Your task to perform on an android device: Search for seafood restaurants on Google Maps Image 0: 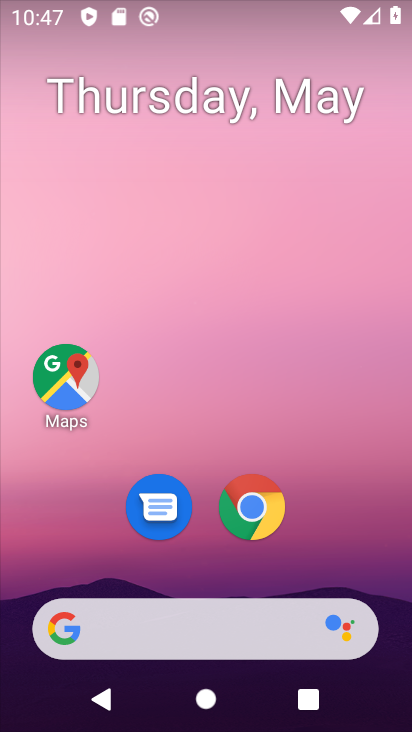
Step 0: drag from (243, 651) to (290, 121)
Your task to perform on an android device: Search for seafood restaurants on Google Maps Image 1: 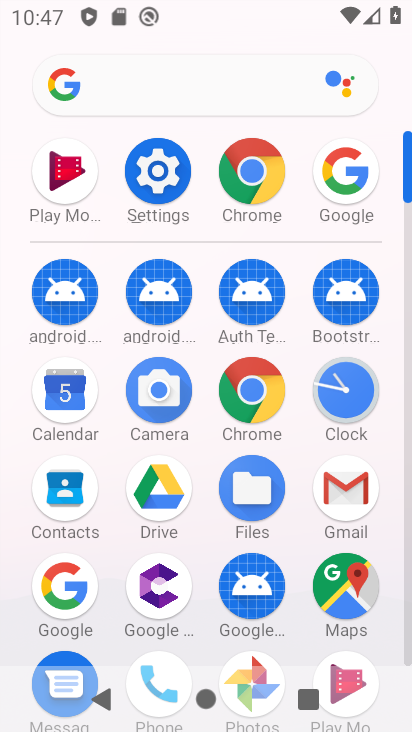
Step 1: click (353, 593)
Your task to perform on an android device: Search for seafood restaurants on Google Maps Image 2: 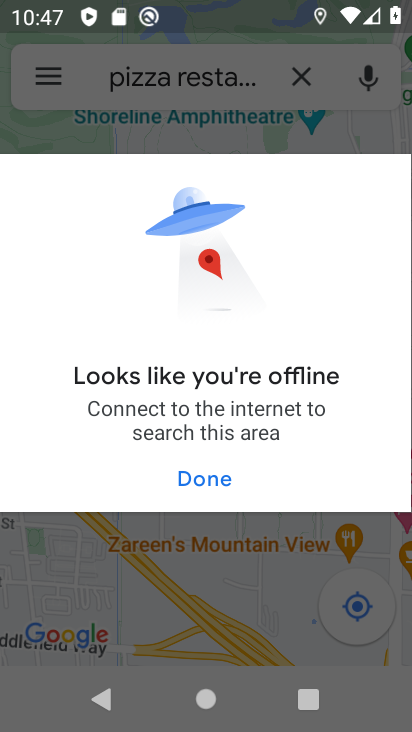
Step 2: click (195, 481)
Your task to perform on an android device: Search for seafood restaurants on Google Maps Image 3: 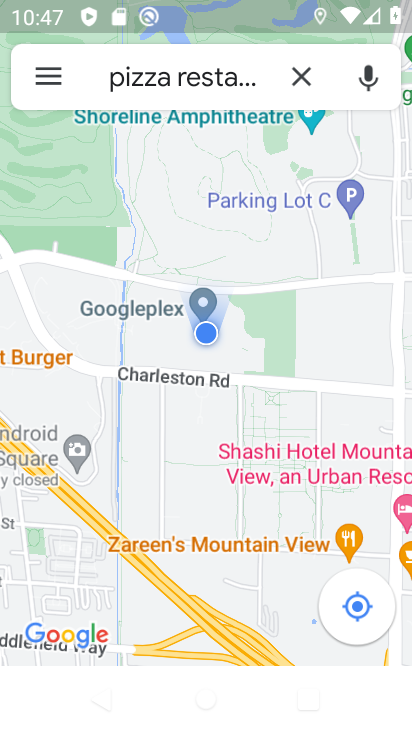
Step 3: click (300, 79)
Your task to perform on an android device: Search for seafood restaurants on Google Maps Image 4: 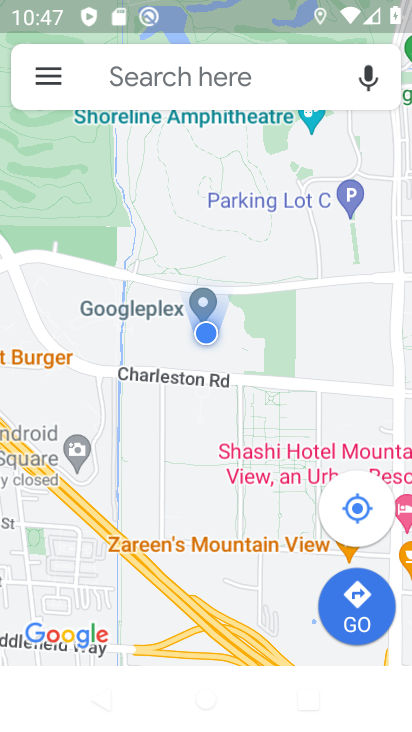
Step 4: click (223, 76)
Your task to perform on an android device: Search for seafood restaurants on Google Maps Image 5: 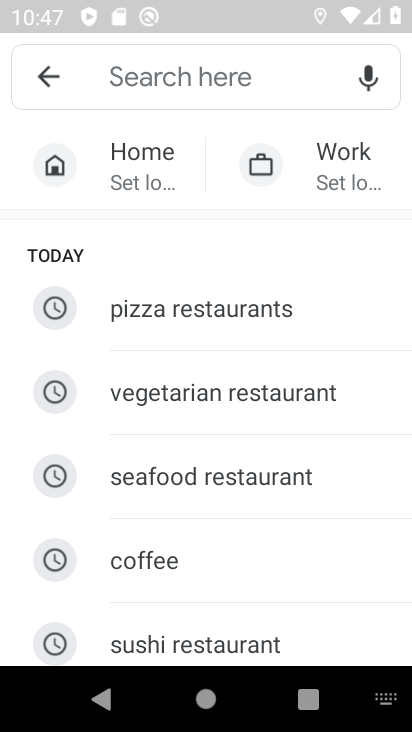
Step 5: drag from (240, 528) to (295, 182)
Your task to perform on an android device: Search for seafood restaurants on Google Maps Image 6: 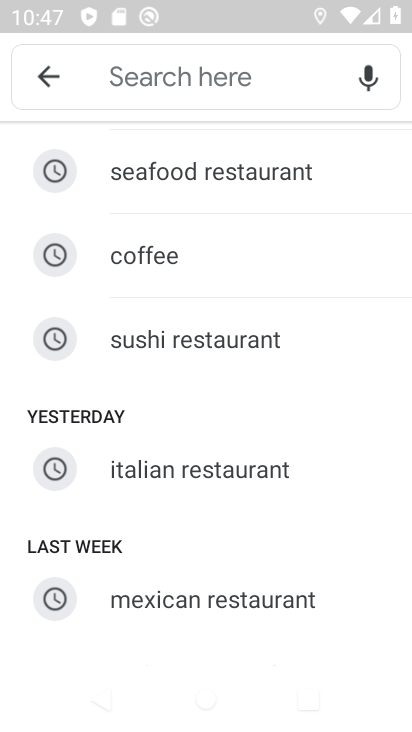
Step 6: click (288, 180)
Your task to perform on an android device: Search for seafood restaurants on Google Maps Image 7: 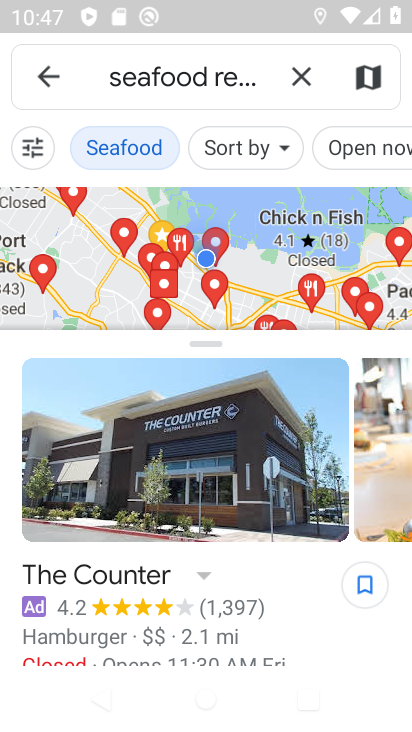
Step 7: task complete